Your task to perform on an android device: turn pop-ups off in chrome Image 0: 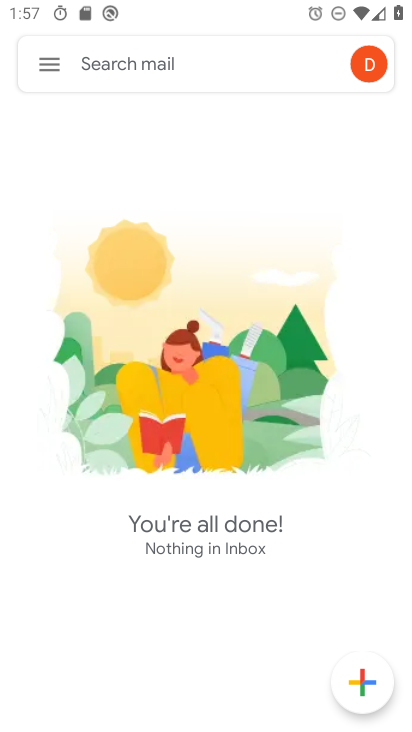
Step 0: press home button
Your task to perform on an android device: turn pop-ups off in chrome Image 1: 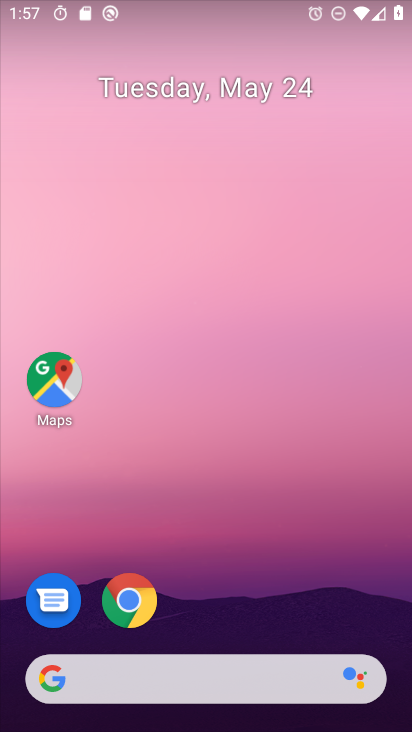
Step 1: click (272, 608)
Your task to perform on an android device: turn pop-ups off in chrome Image 2: 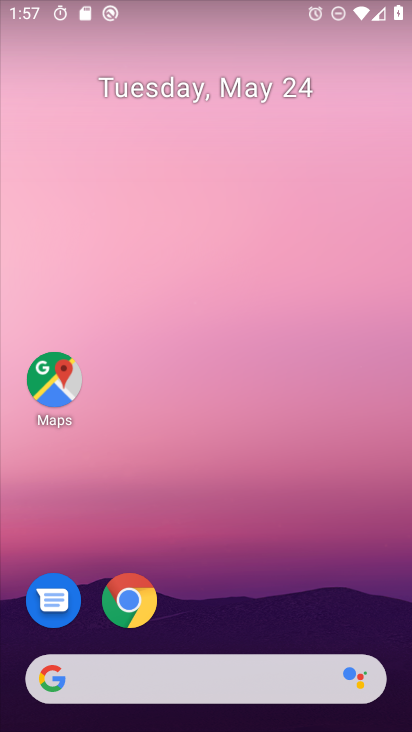
Step 2: click (131, 602)
Your task to perform on an android device: turn pop-ups off in chrome Image 3: 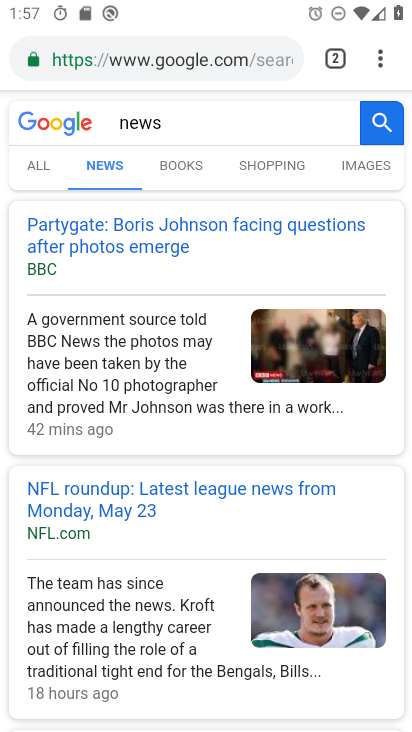
Step 3: click (377, 55)
Your task to perform on an android device: turn pop-ups off in chrome Image 4: 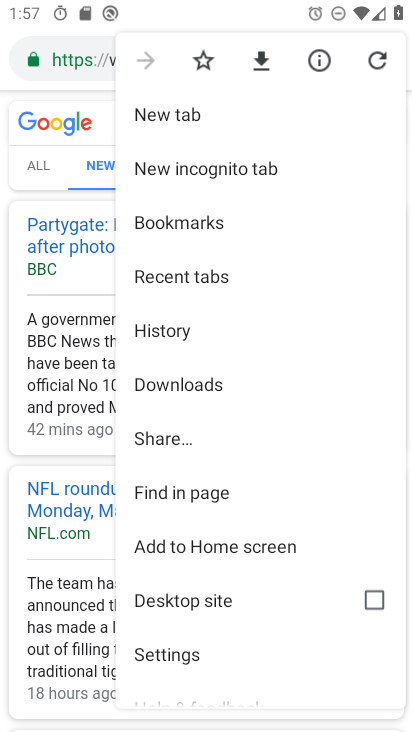
Step 4: drag from (213, 631) to (296, 201)
Your task to perform on an android device: turn pop-ups off in chrome Image 5: 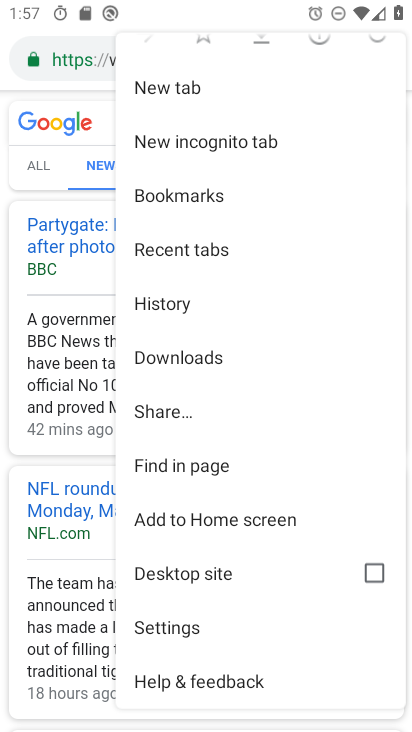
Step 5: click (174, 636)
Your task to perform on an android device: turn pop-ups off in chrome Image 6: 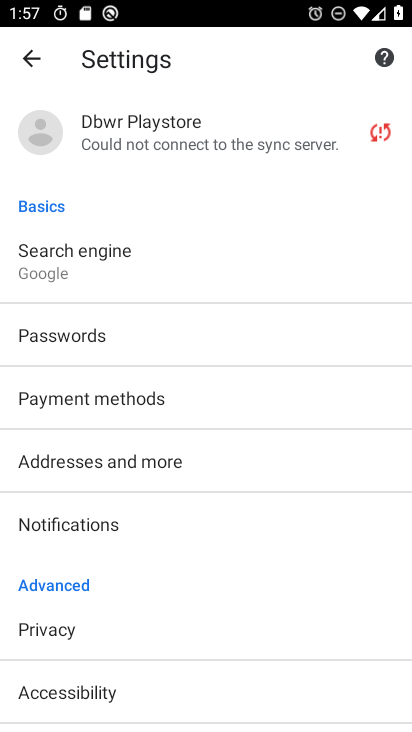
Step 6: drag from (179, 610) to (261, 316)
Your task to perform on an android device: turn pop-ups off in chrome Image 7: 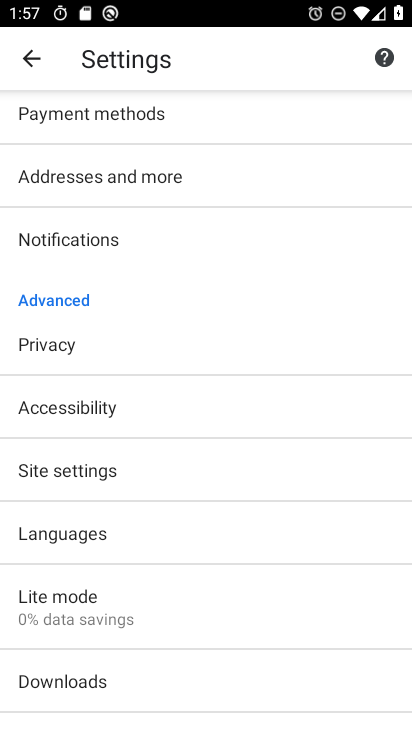
Step 7: click (145, 474)
Your task to perform on an android device: turn pop-ups off in chrome Image 8: 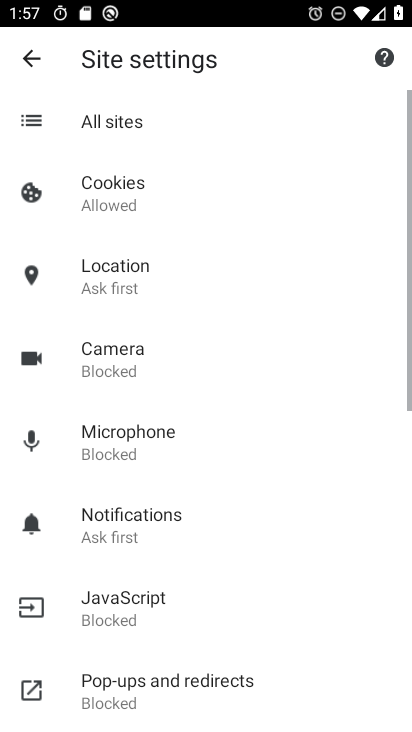
Step 8: drag from (239, 533) to (259, 193)
Your task to perform on an android device: turn pop-ups off in chrome Image 9: 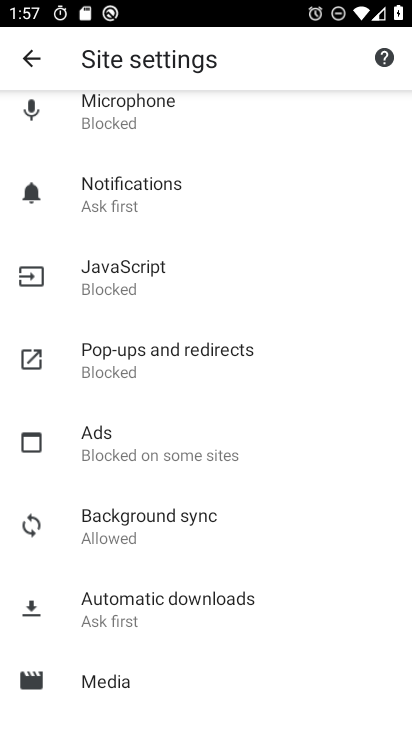
Step 9: click (178, 371)
Your task to perform on an android device: turn pop-ups off in chrome Image 10: 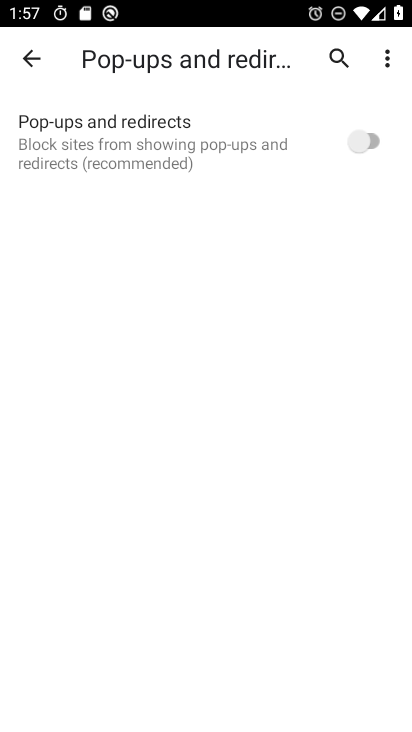
Step 10: task complete